Your task to perform on an android device: turn pop-ups off in chrome Image 0: 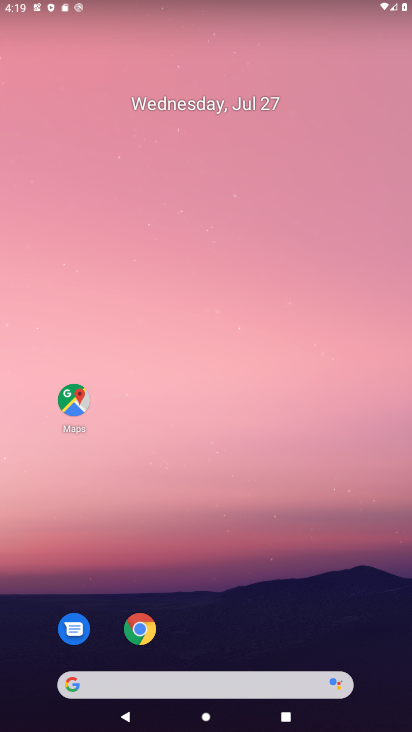
Step 0: drag from (220, 619) to (167, 259)
Your task to perform on an android device: turn pop-ups off in chrome Image 1: 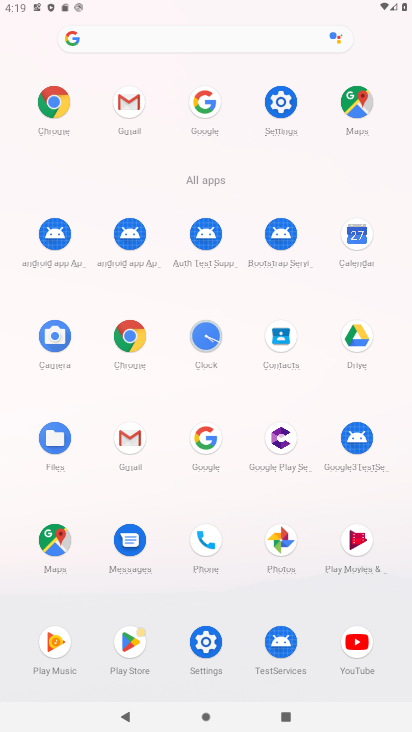
Step 1: click (38, 96)
Your task to perform on an android device: turn pop-ups off in chrome Image 2: 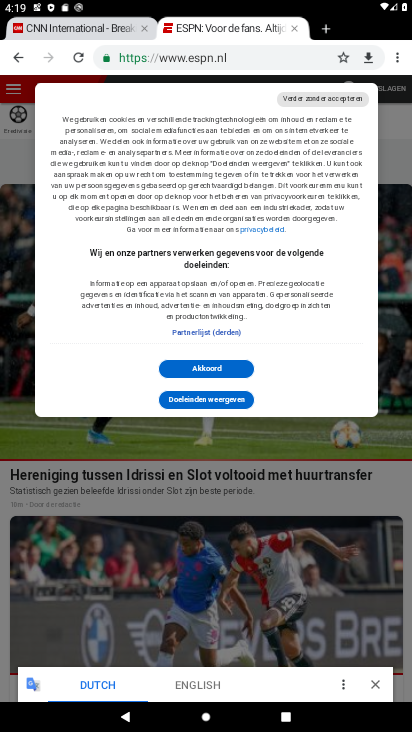
Step 2: click (396, 52)
Your task to perform on an android device: turn pop-ups off in chrome Image 3: 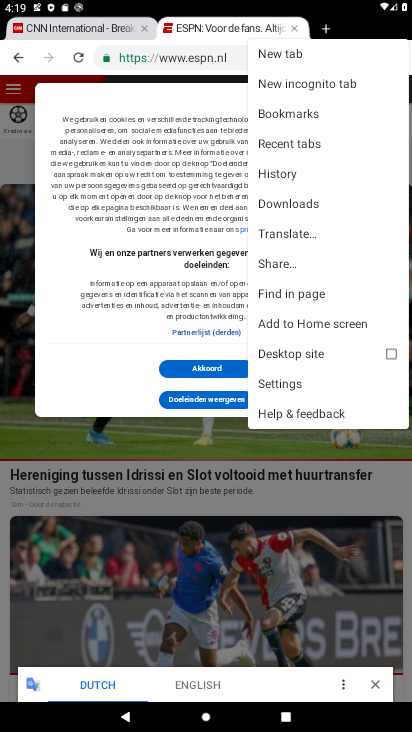
Step 3: click (282, 381)
Your task to perform on an android device: turn pop-ups off in chrome Image 4: 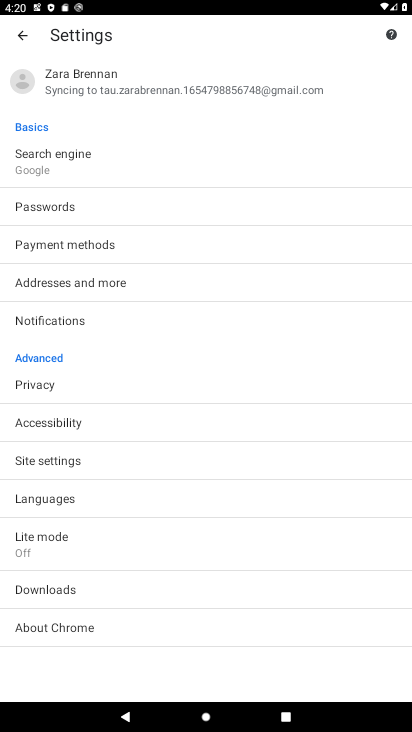
Step 4: click (62, 459)
Your task to perform on an android device: turn pop-ups off in chrome Image 5: 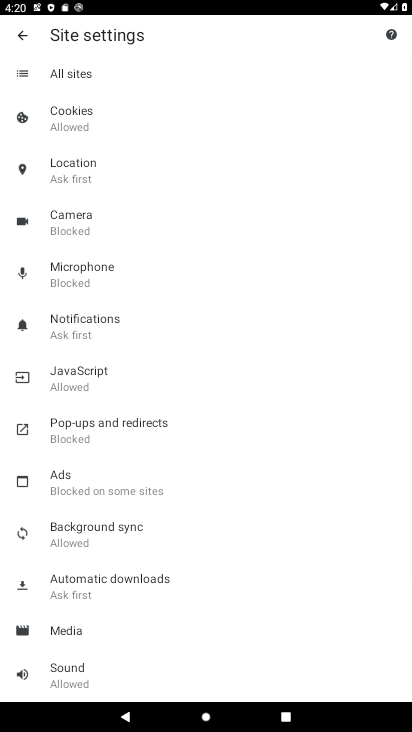
Step 5: click (97, 431)
Your task to perform on an android device: turn pop-ups off in chrome Image 6: 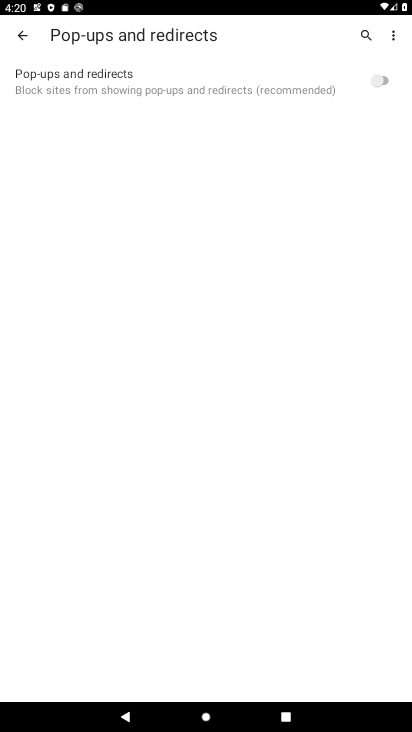
Step 6: task complete